Your task to perform on an android device: open app "Google Keep" (install if not already installed) Image 0: 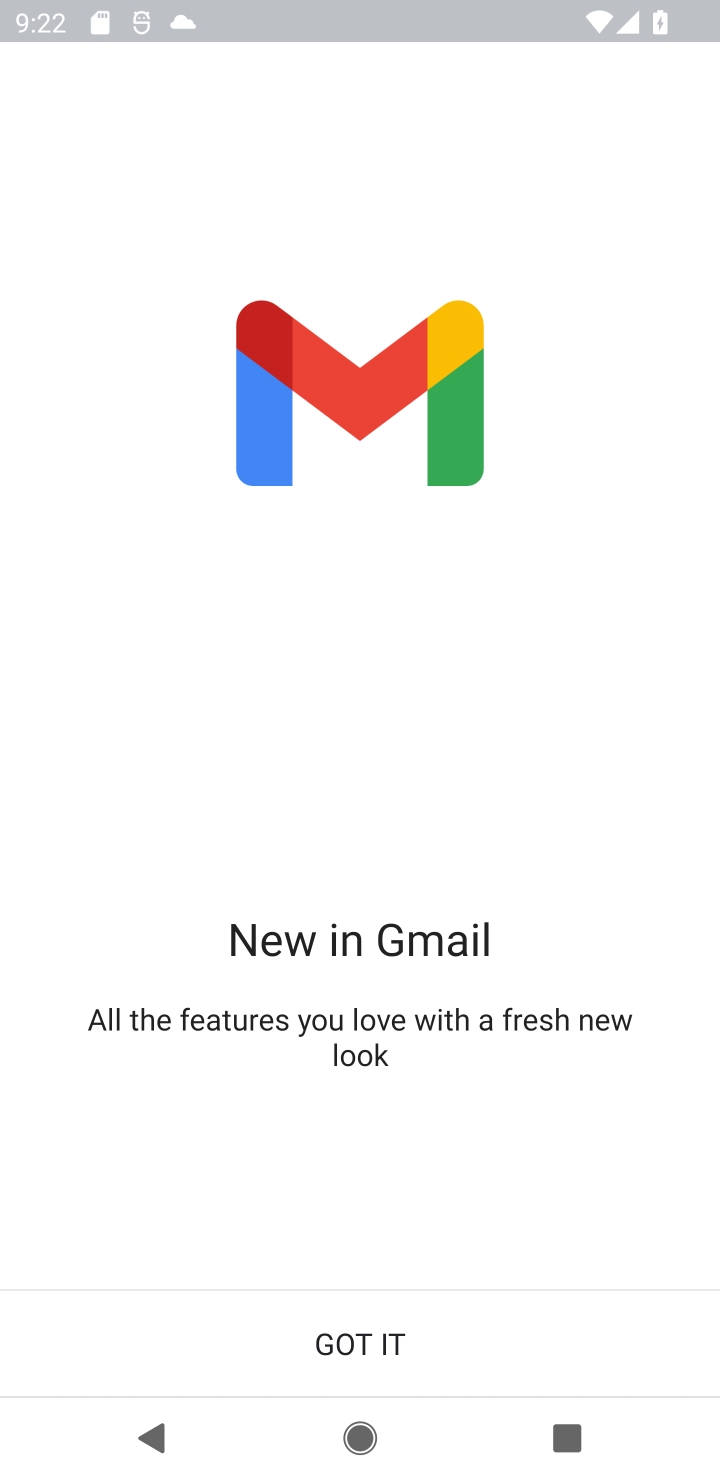
Step 0: click (373, 1322)
Your task to perform on an android device: open app "Google Keep" (install if not already installed) Image 1: 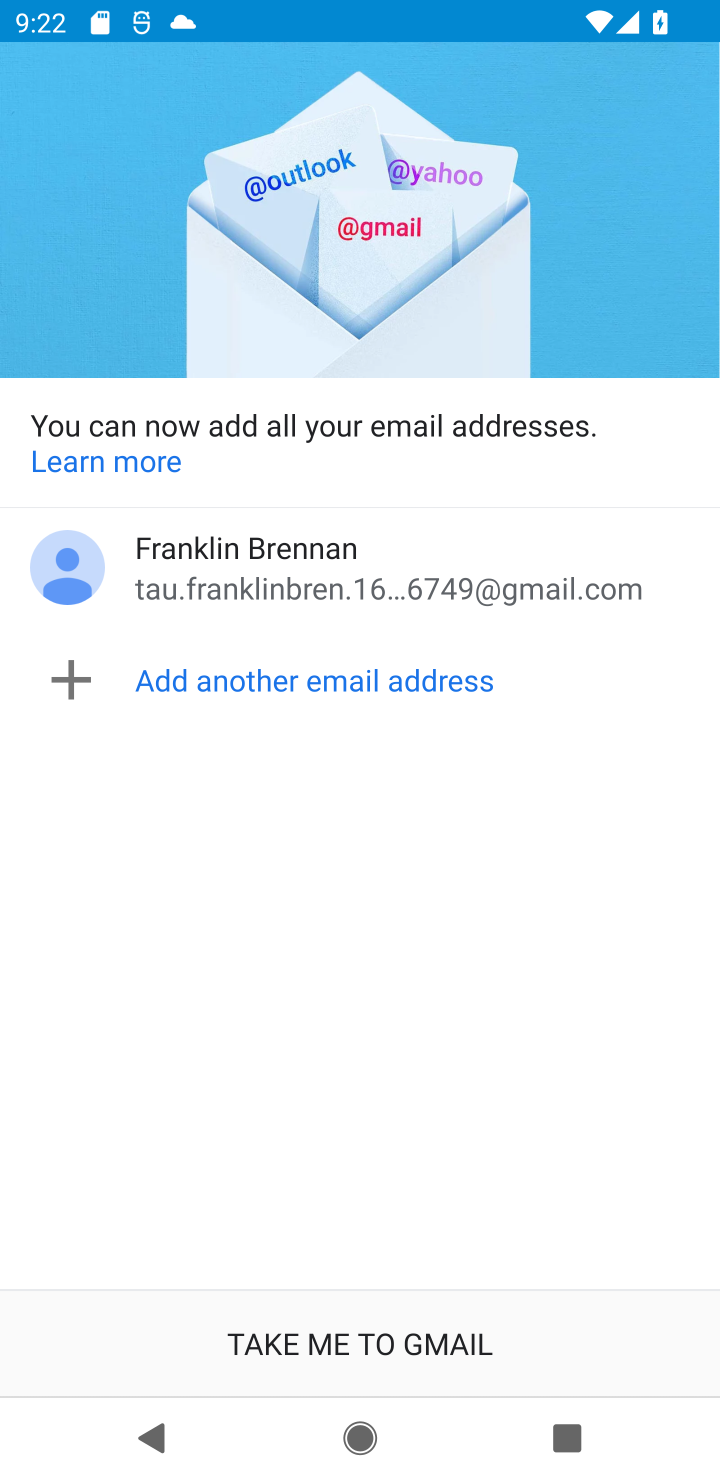
Step 1: press home button
Your task to perform on an android device: open app "Google Keep" (install if not already installed) Image 2: 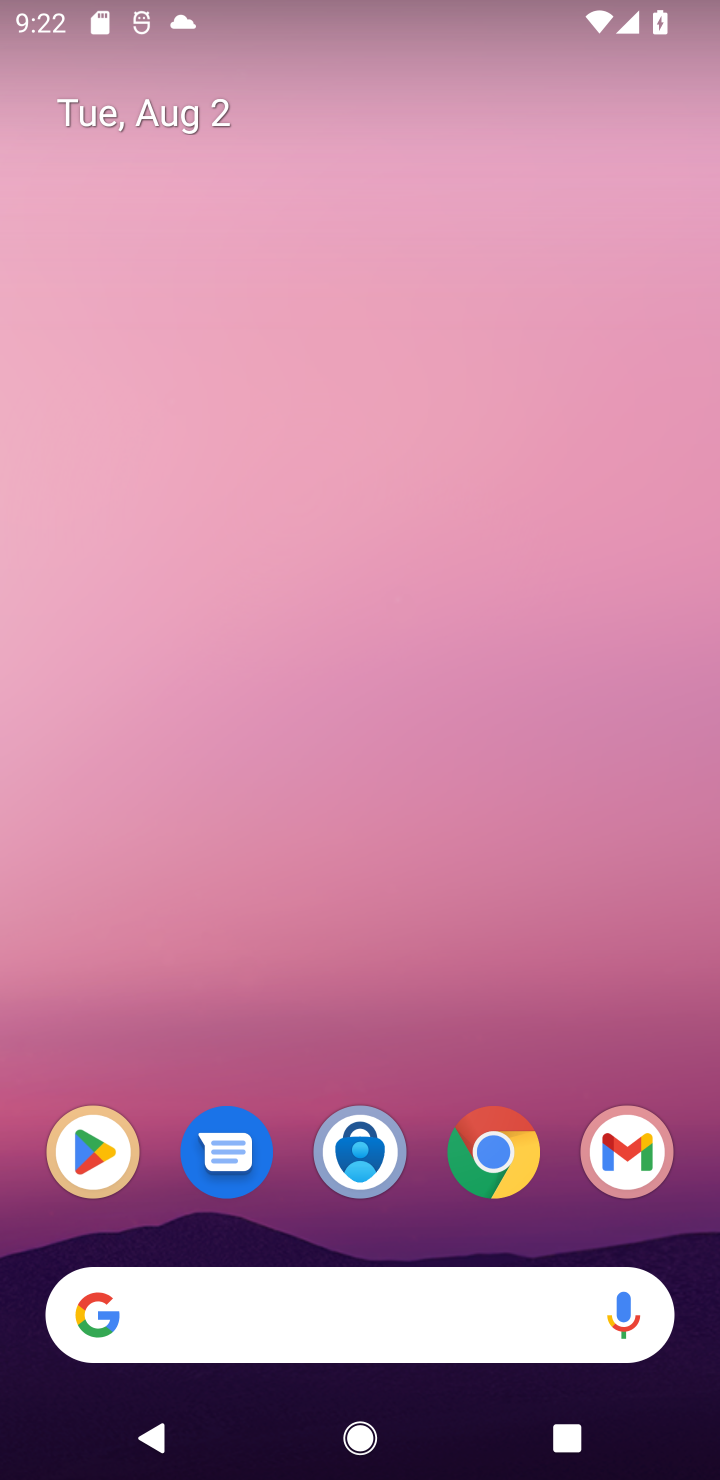
Step 2: click (106, 1125)
Your task to perform on an android device: open app "Google Keep" (install if not already installed) Image 3: 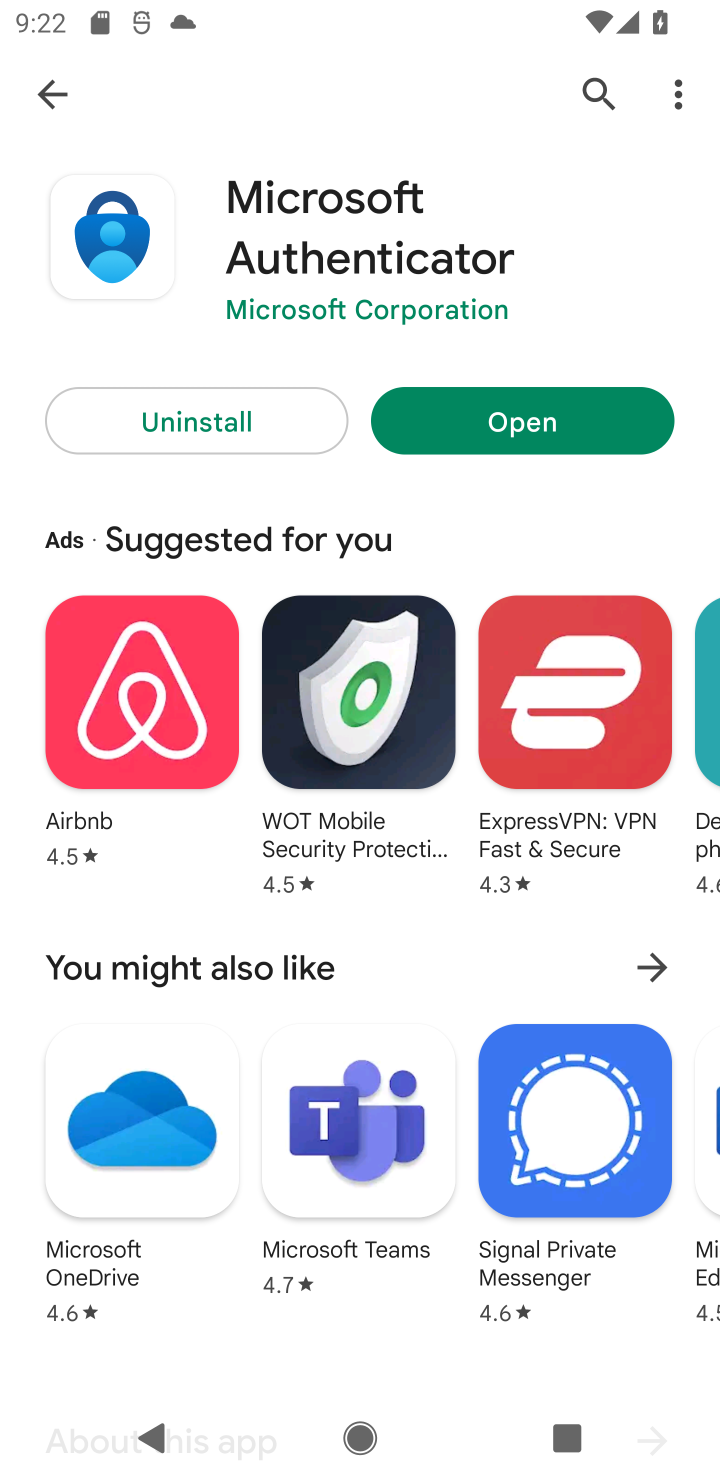
Step 3: click (46, 89)
Your task to perform on an android device: open app "Google Keep" (install if not already installed) Image 4: 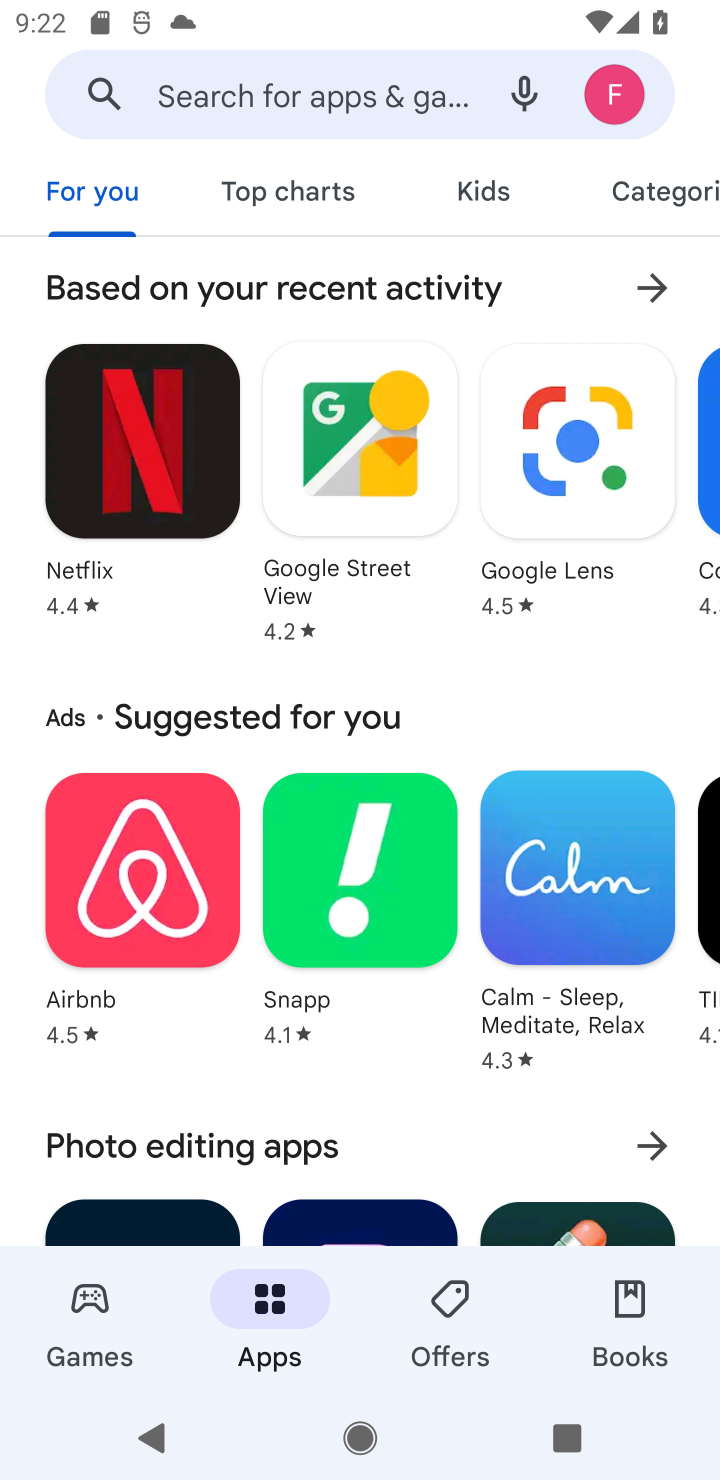
Step 4: click (144, 89)
Your task to perform on an android device: open app "Google Keep" (install if not already installed) Image 5: 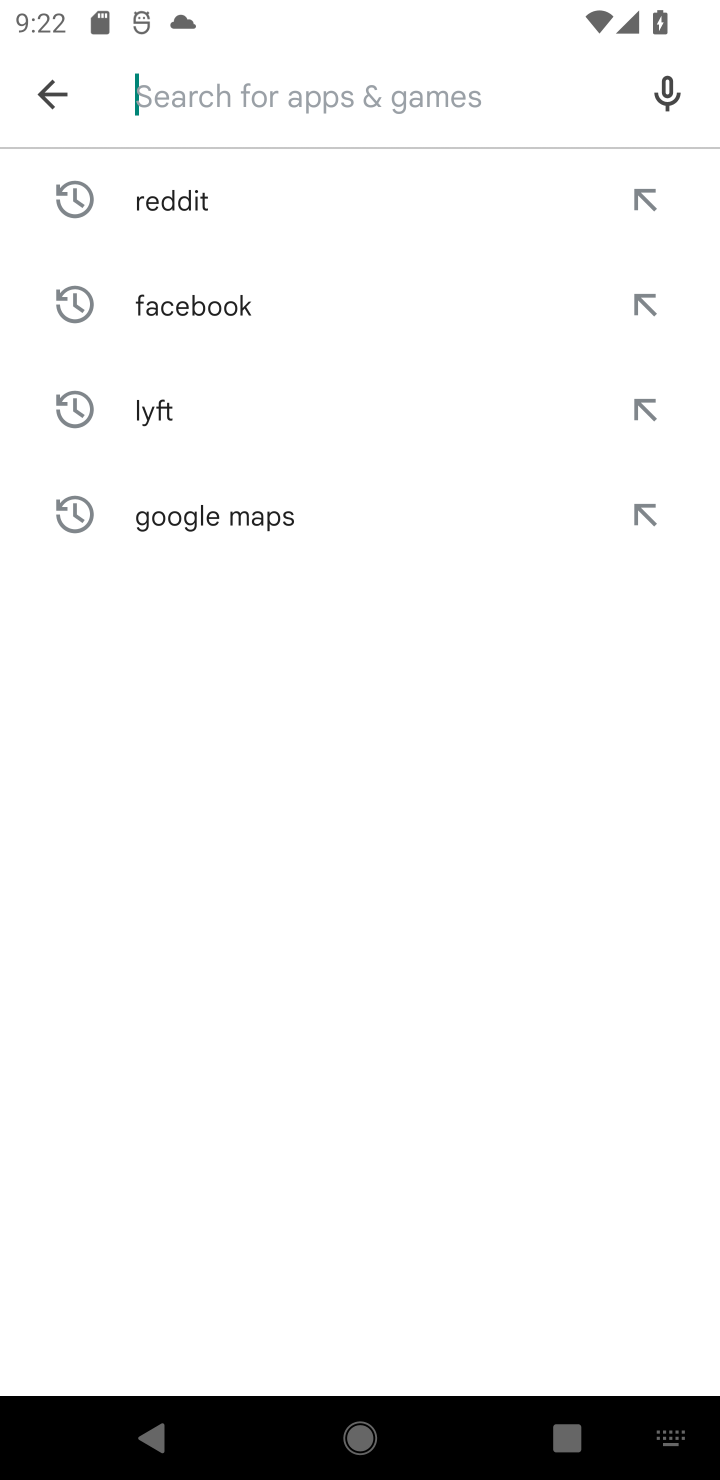
Step 5: type "Google Keep"
Your task to perform on an android device: open app "Google Keep" (install if not already installed) Image 6: 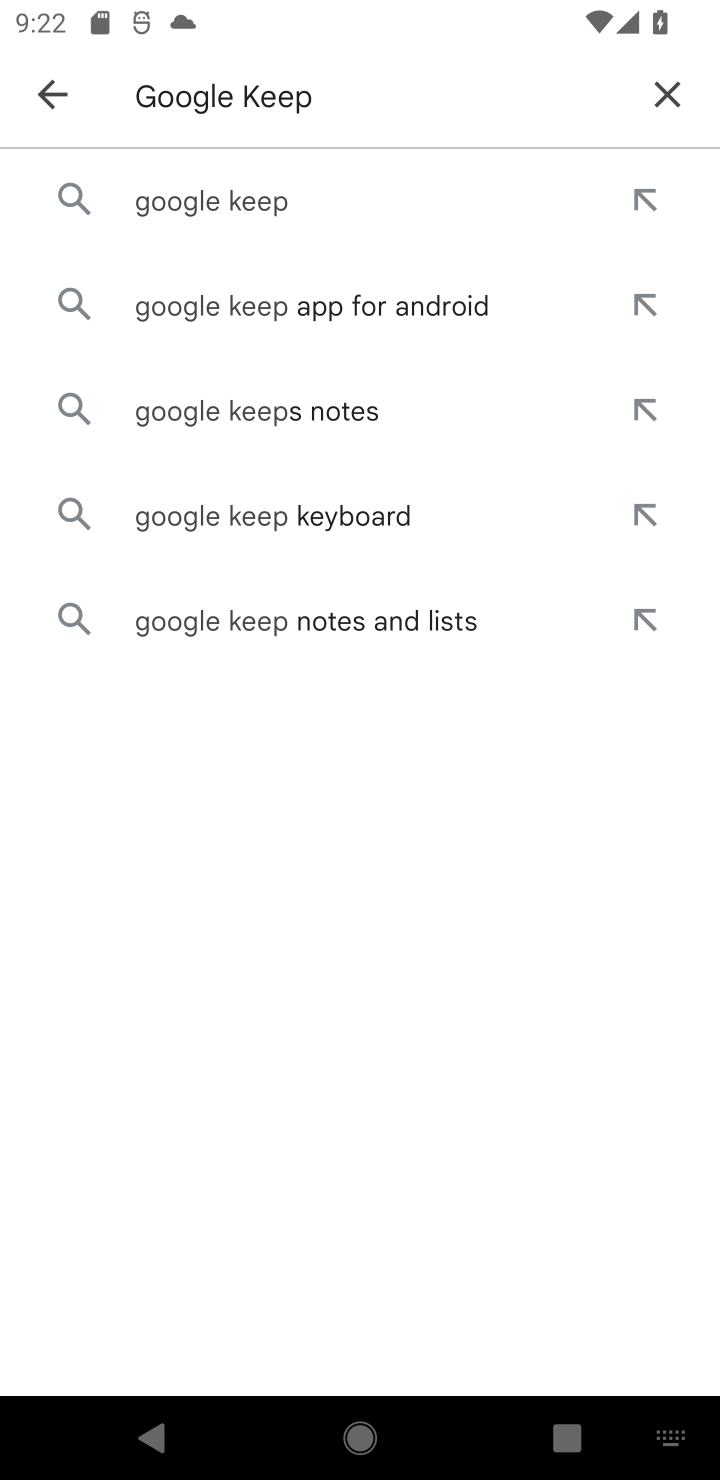
Step 6: click (222, 204)
Your task to perform on an android device: open app "Google Keep" (install if not already installed) Image 7: 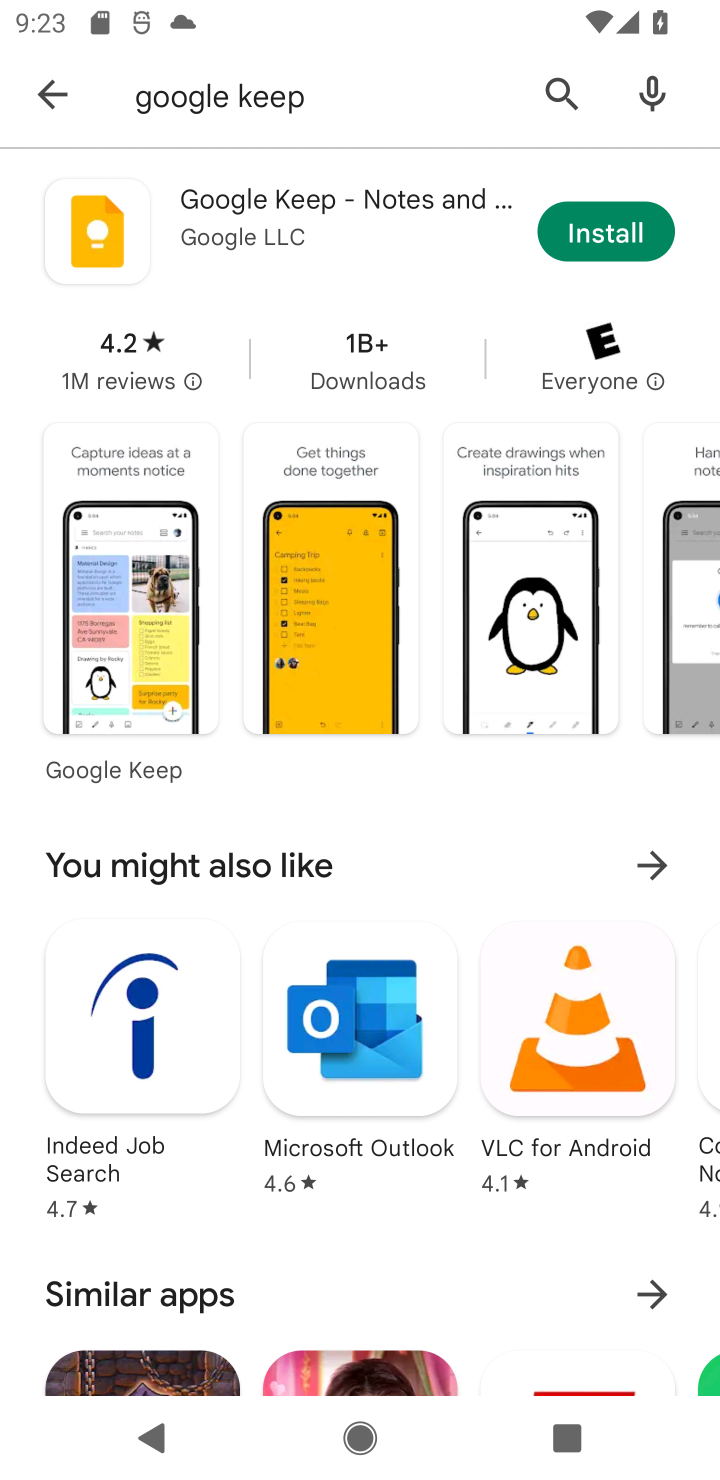
Step 7: click (595, 210)
Your task to perform on an android device: open app "Google Keep" (install if not already installed) Image 8: 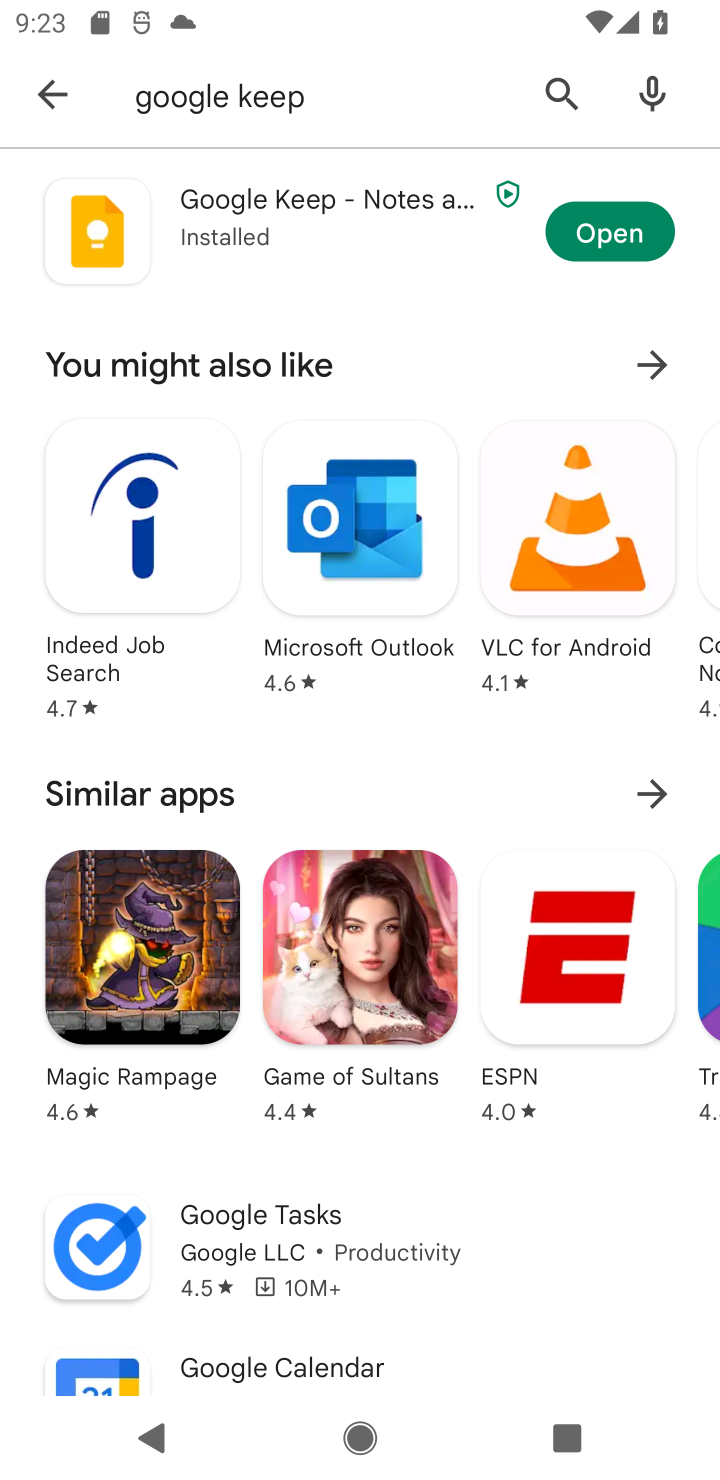
Step 8: click (606, 234)
Your task to perform on an android device: open app "Google Keep" (install if not already installed) Image 9: 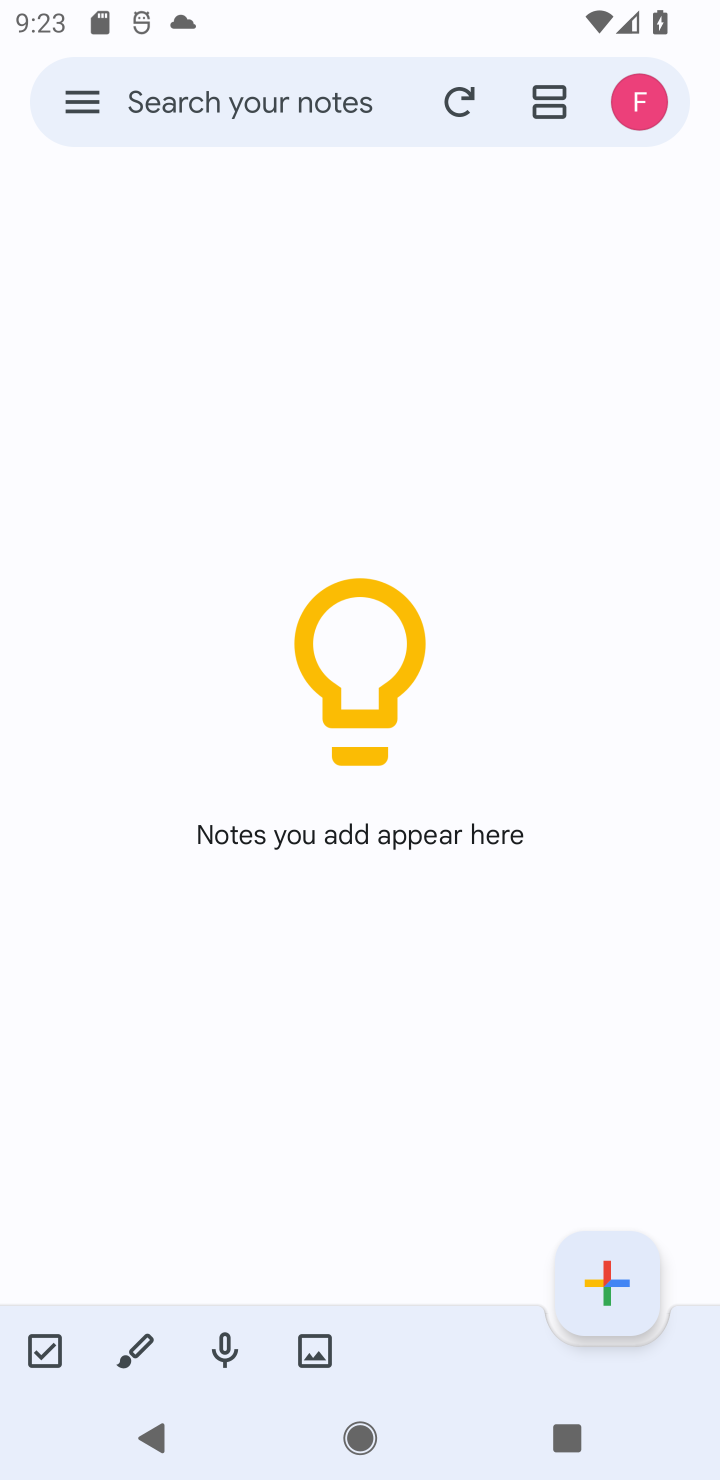
Step 9: task complete